Your task to perform on an android device: install app "Messages" Image 0: 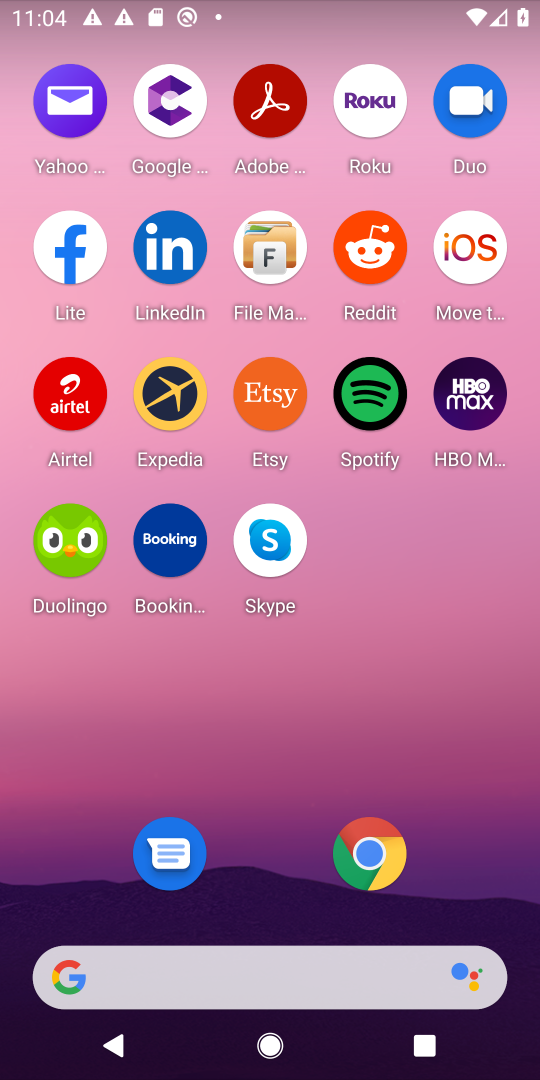
Step 0: drag from (229, 878) to (263, 182)
Your task to perform on an android device: install app "Messages" Image 1: 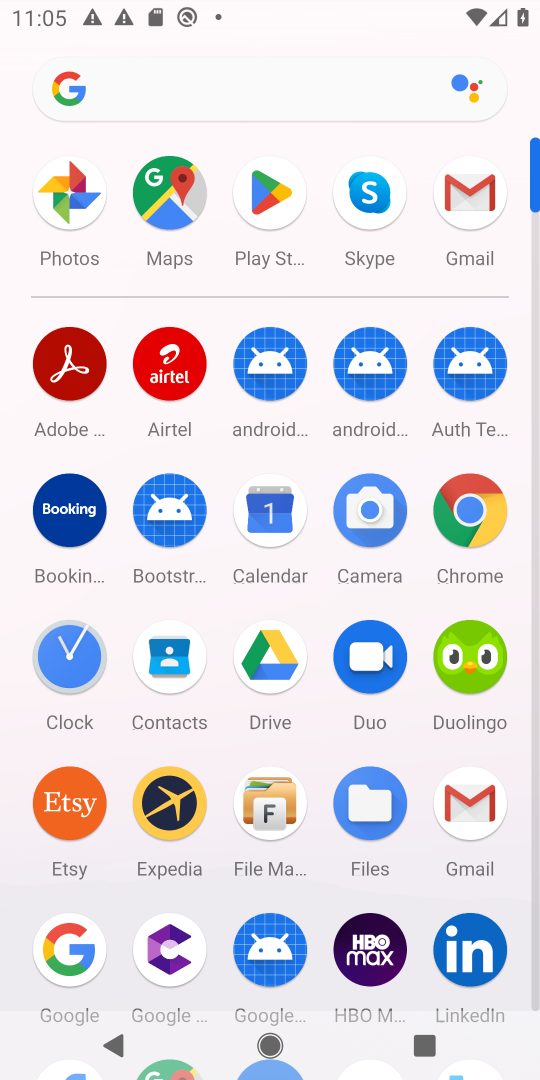
Step 1: click (267, 209)
Your task to perform on an android device: install app "Messages" Image 2: 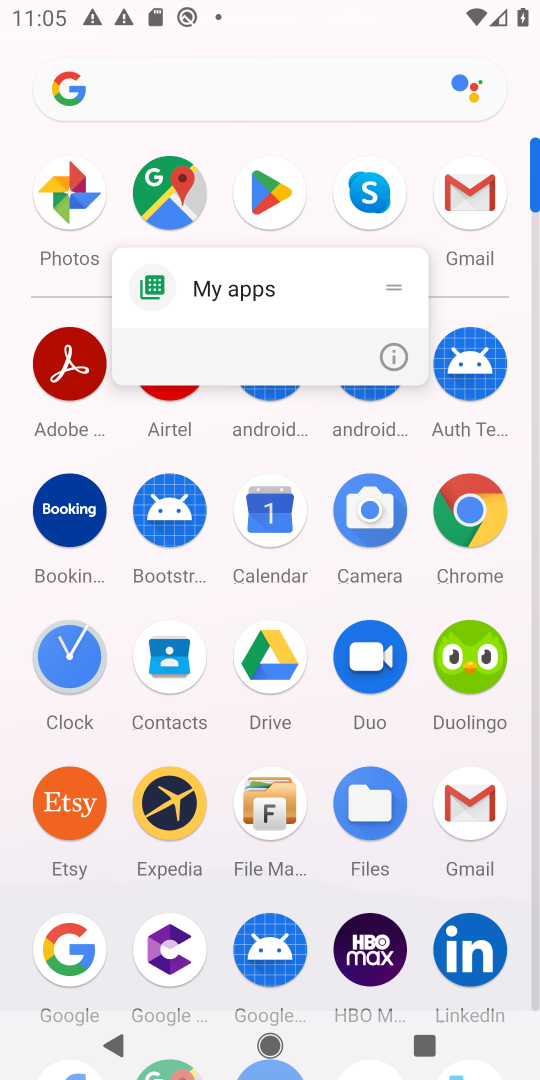
Step 2: click (394, 361)
Your task to perform on an android device: install app "Messages" Image 3: 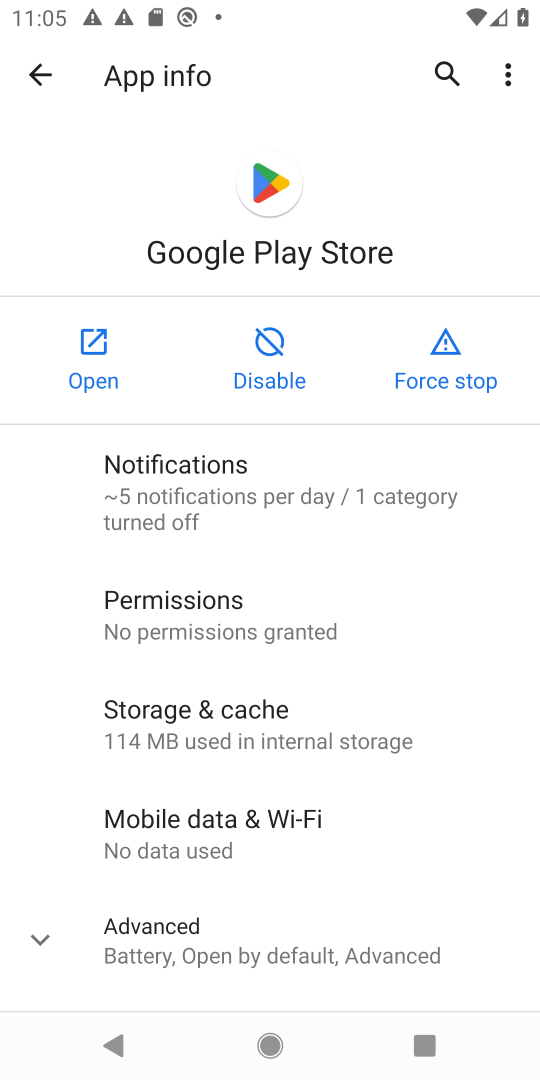
Step 3: click (92, 363)
Your task to perform on an android device: install app "Messages" Image 4: 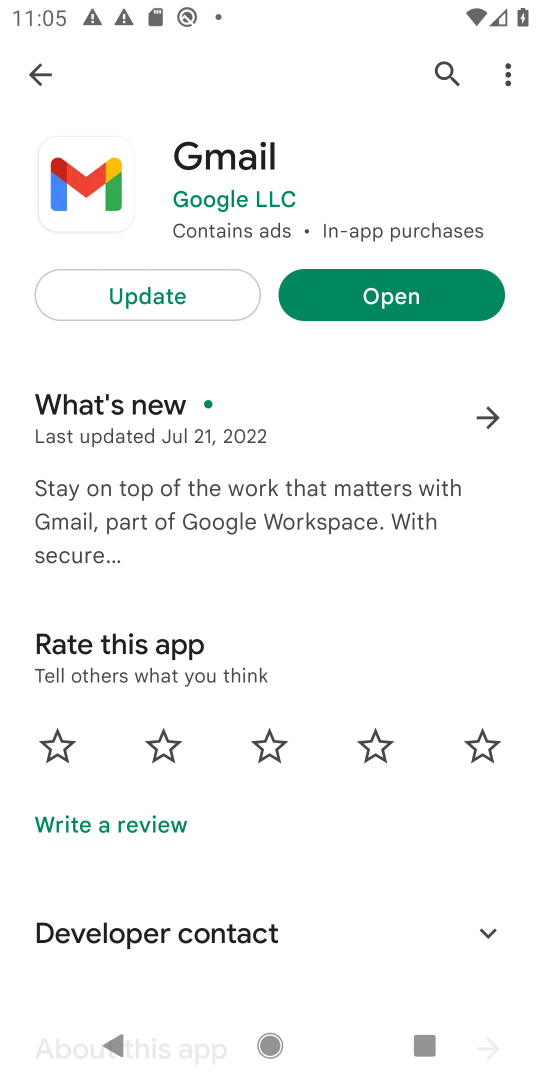
Step 4: click (457, 77)
Your task to perform on an android device: install app "Messages" Image 5: 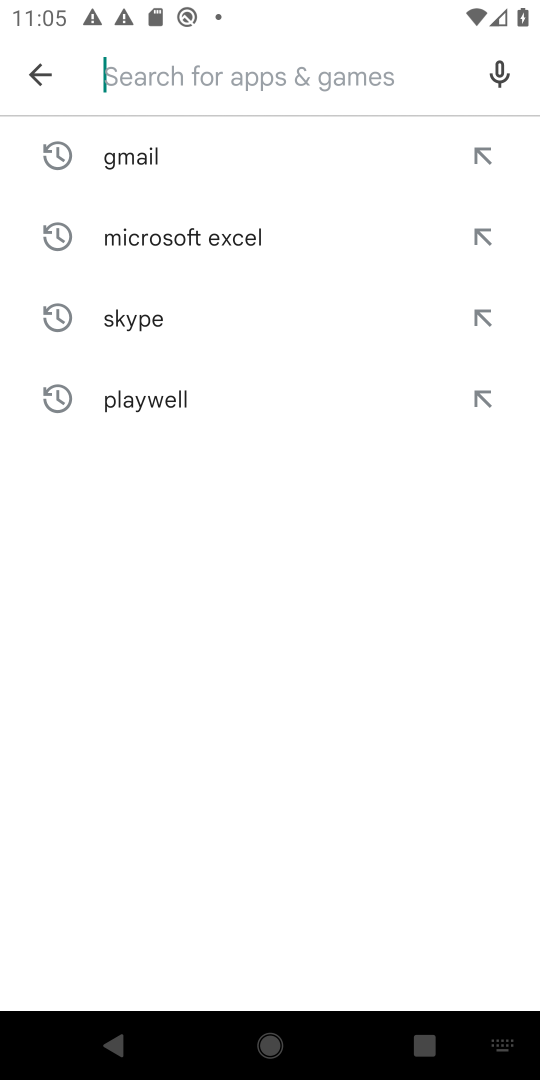
Step 5: type "Messages"
Your task to perform on an android device: install app "Messages" Image 6: 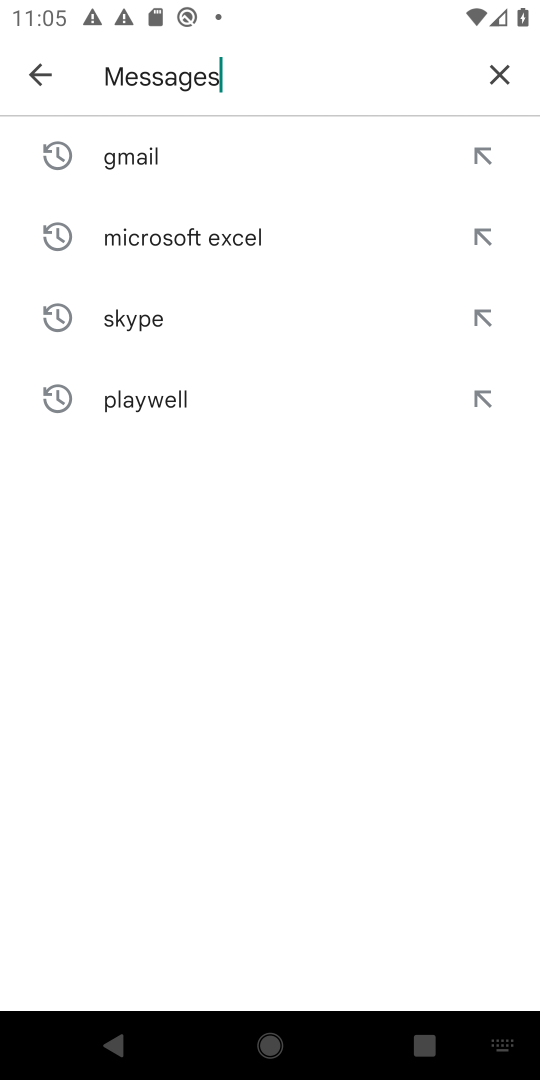
Step 6: type ""
Your task to perform on an android device: install app "Messages" Image 7: 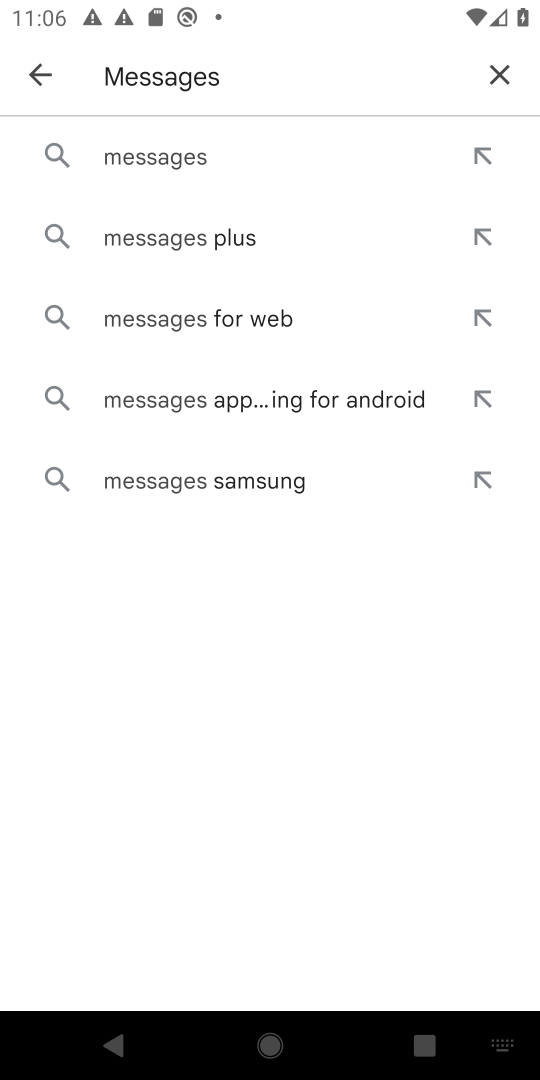
Step 7: click (185, 169)
Your task to perform on an android device: install app "Messages" Image 8: 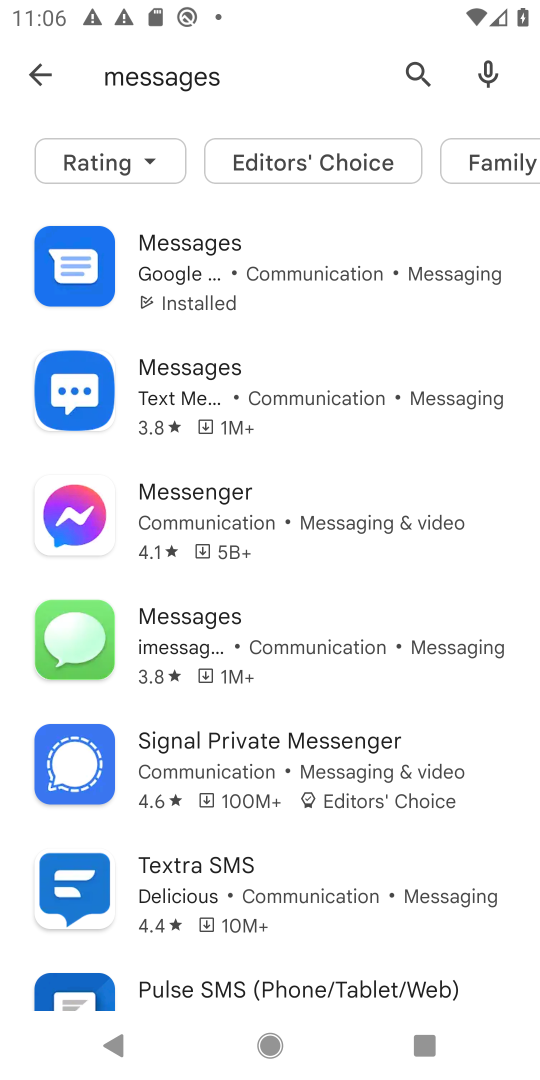
Step 8: click (162, 245)
Your task to perform on an android device: install app "Messages" Image 9: 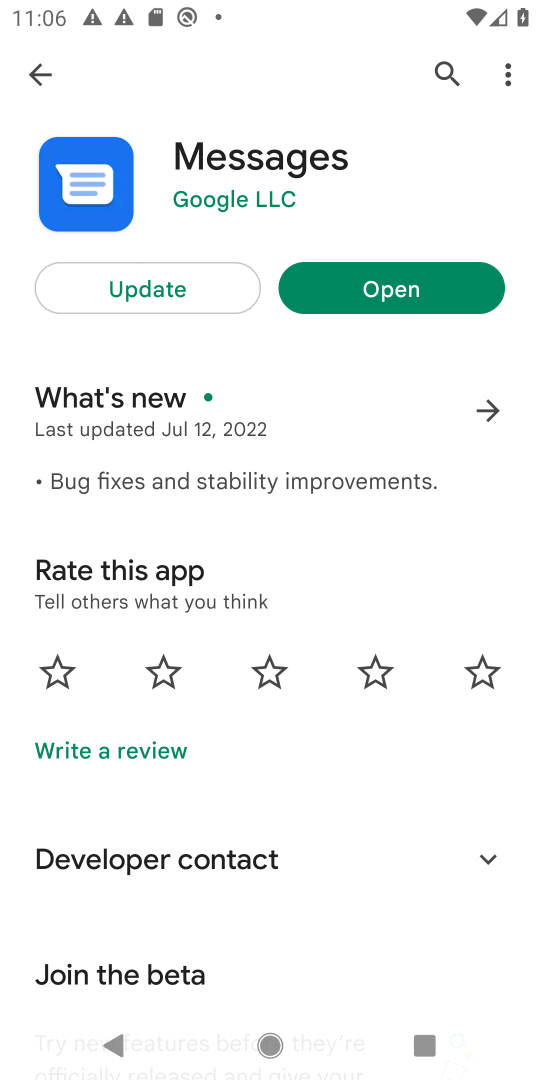
Step 9: task complete